Your task to perform on an android device: What is the recent news? Image 0: 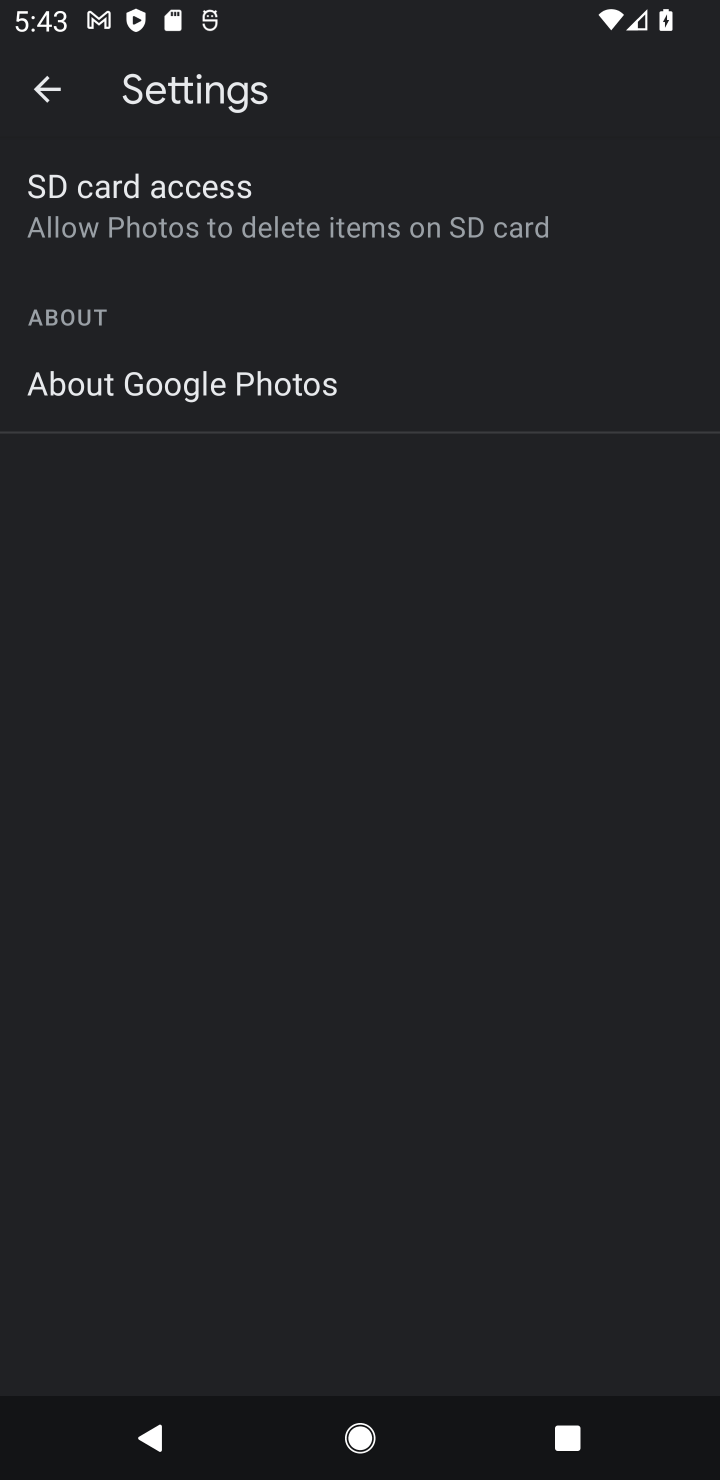
Step 0: drag from (274, 1273) to (135, 61)
Your task to perform on an android device: What is the recent news? Image 1: 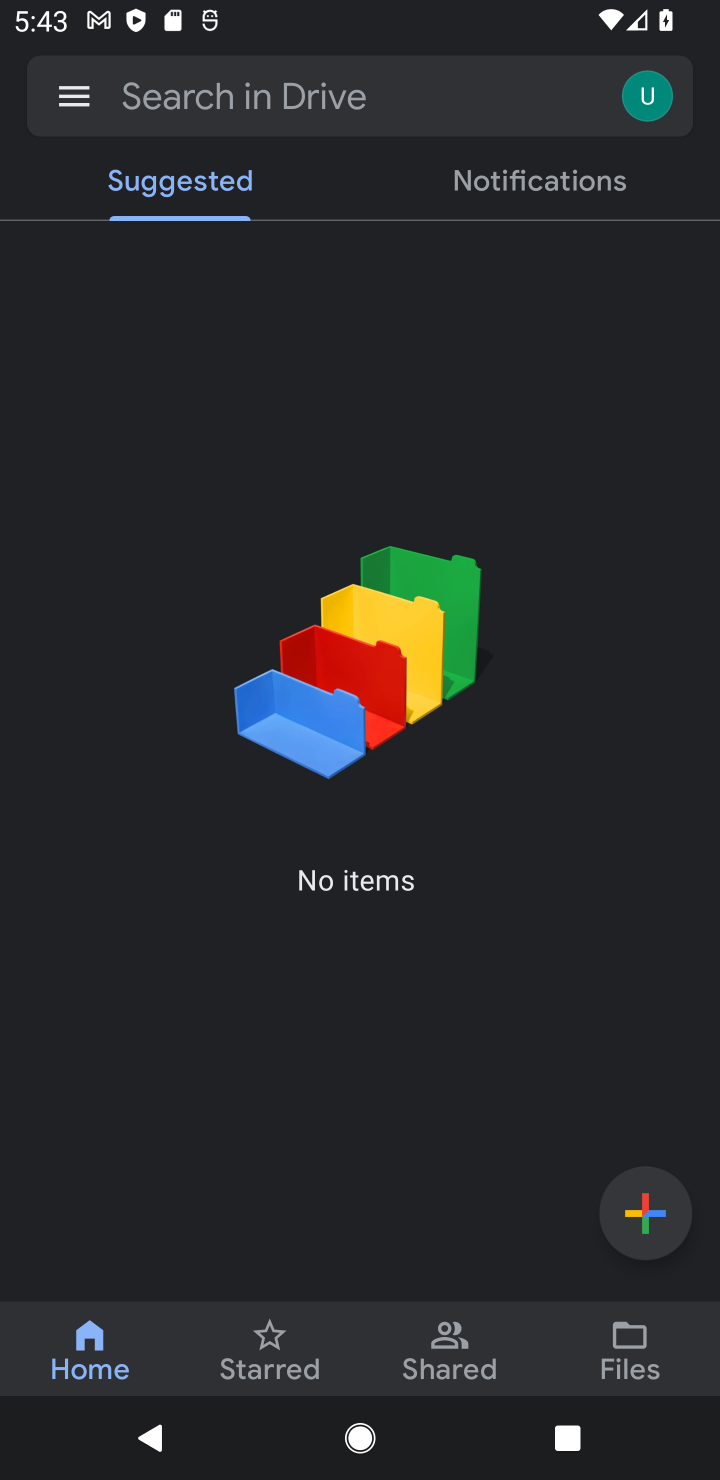
Step 1: press home button
Your task to perform on an android device: What is the recent news? Image 2: 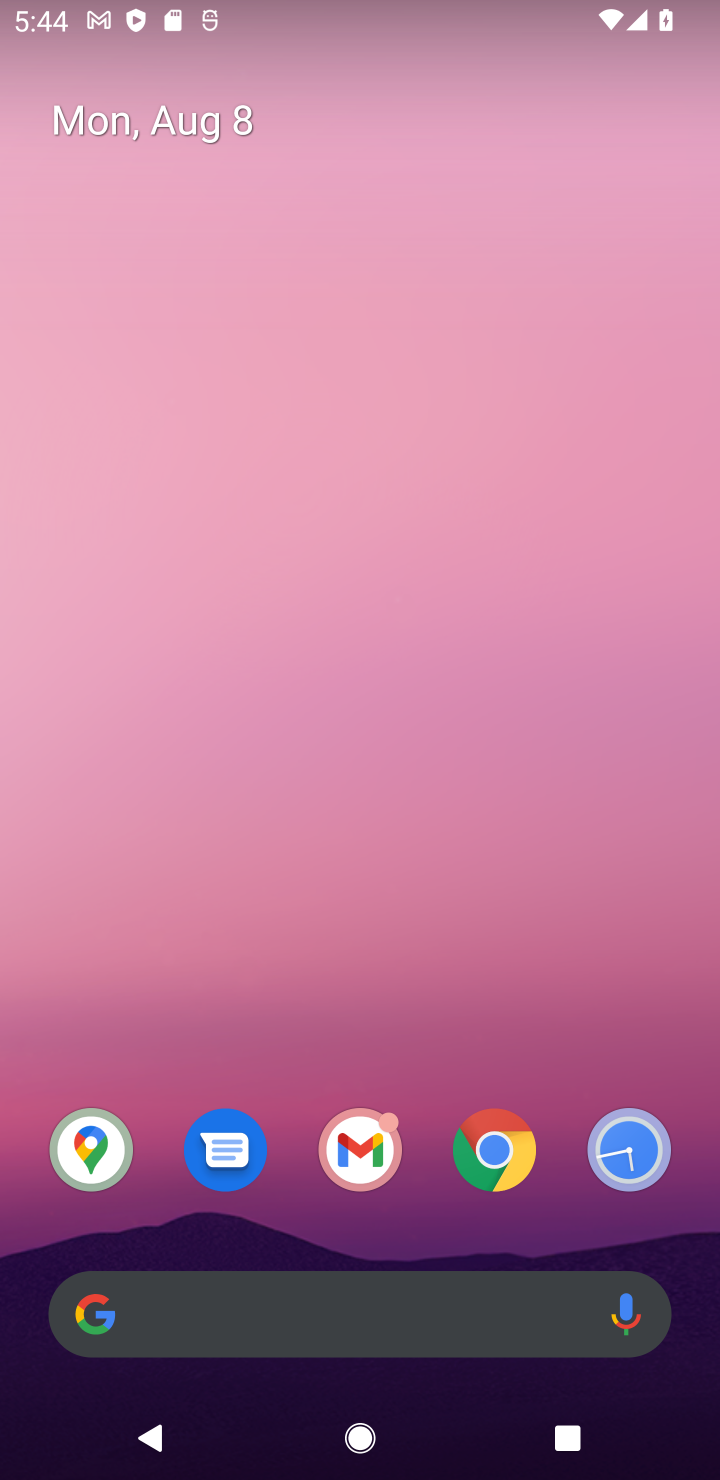
Step 2: click (257, 1307)
Your task to perform on an android device: What is the recent news? Image 3: 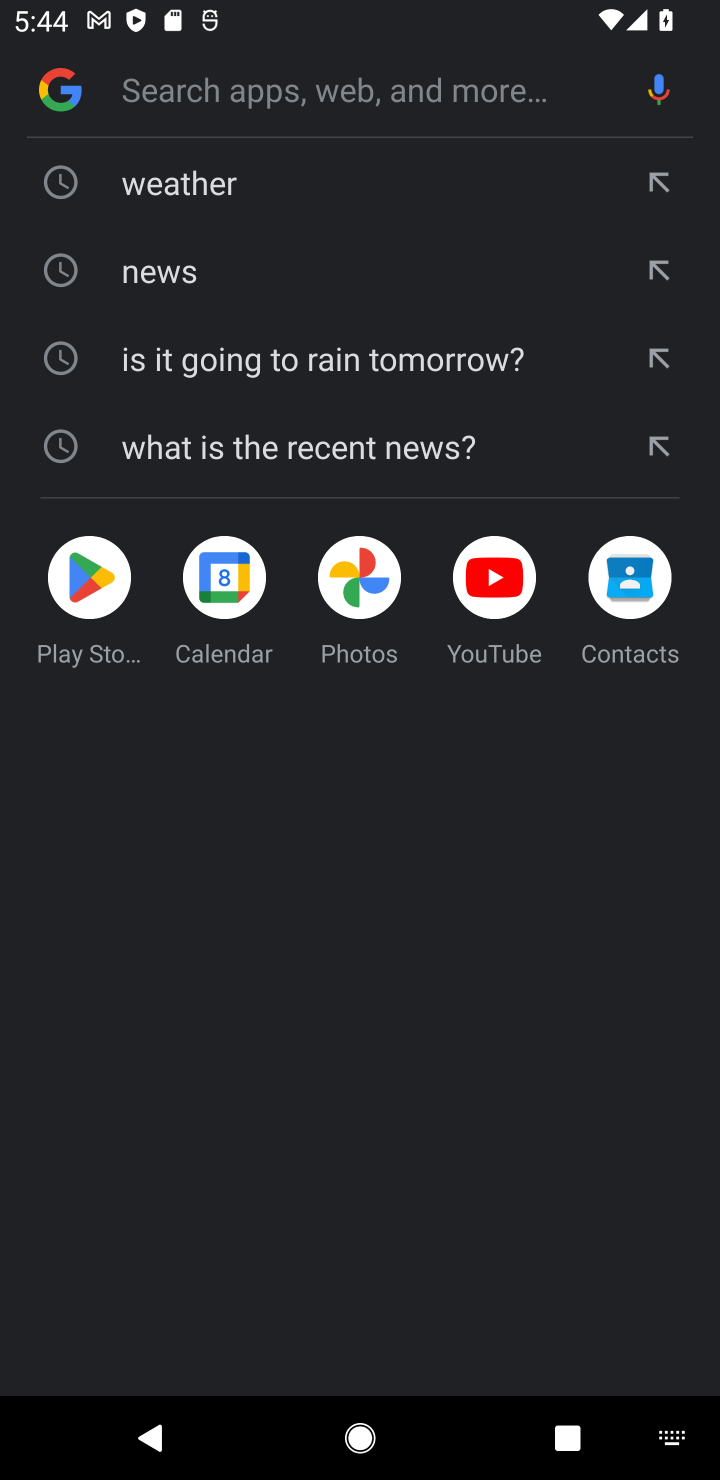
Step 3: click (218, 273)
Your task to perform on an android device: What is the recent news? Image 4: 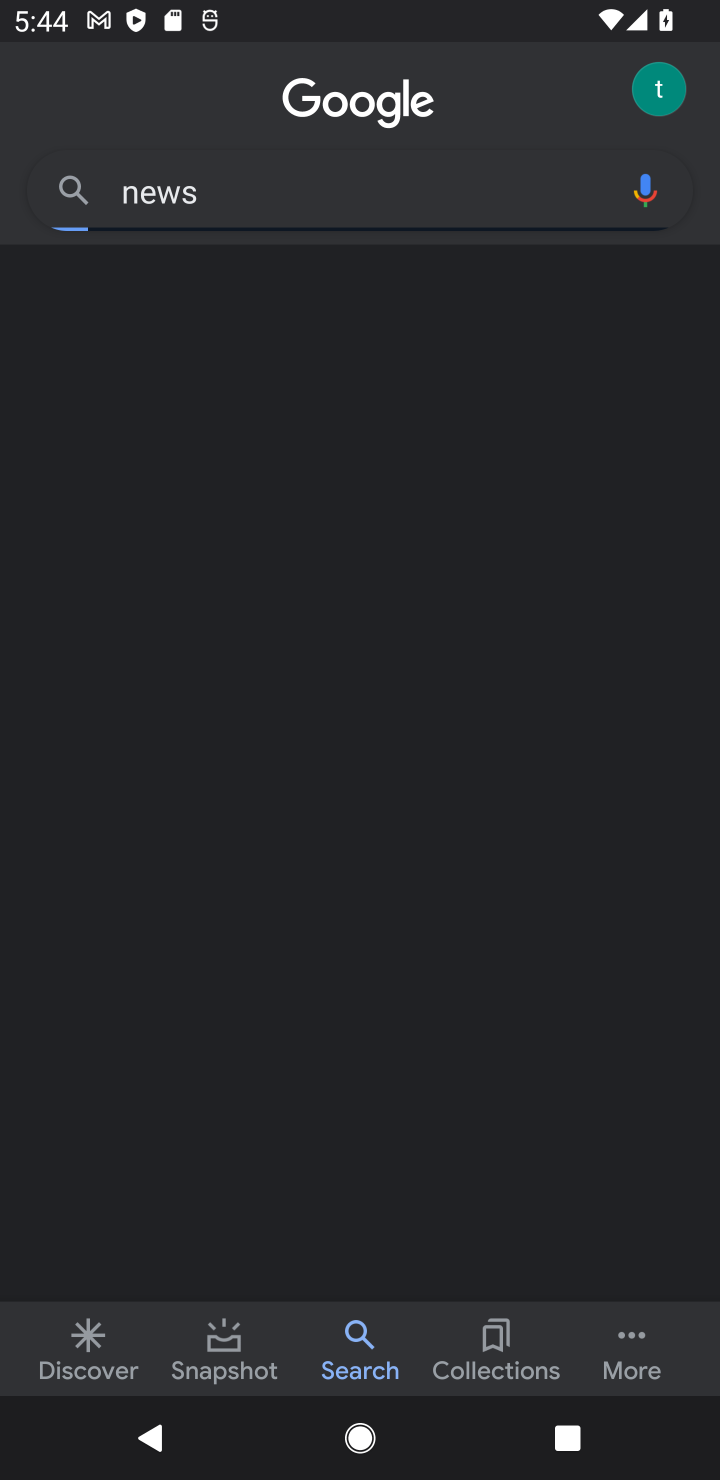
Step 4: task complete